Your task to perform on an android device: Go to battery settings Image 0: 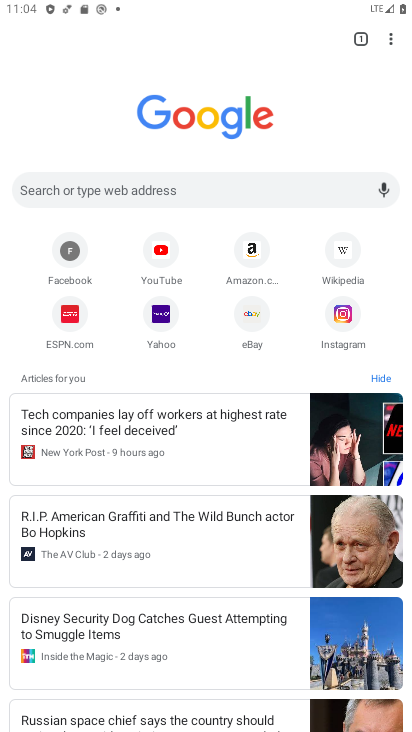
Step 0: press back button
Your task to perform on an android device: Go to battery settings Image 1: 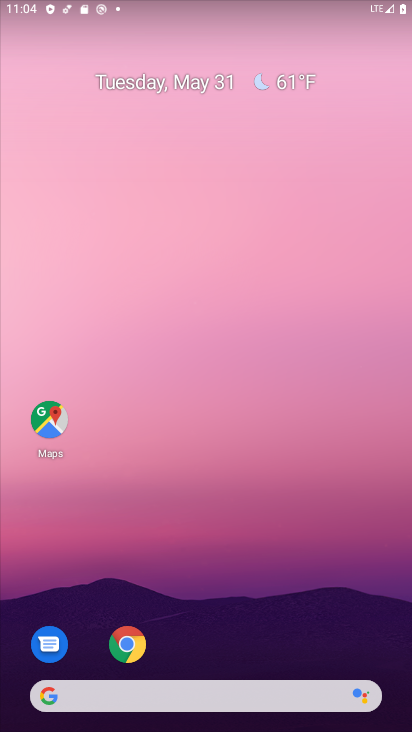
Step 1: drag from (243, 565) to (305, 75)
Your task to perform on an android device: Go to battery settings Image 2: 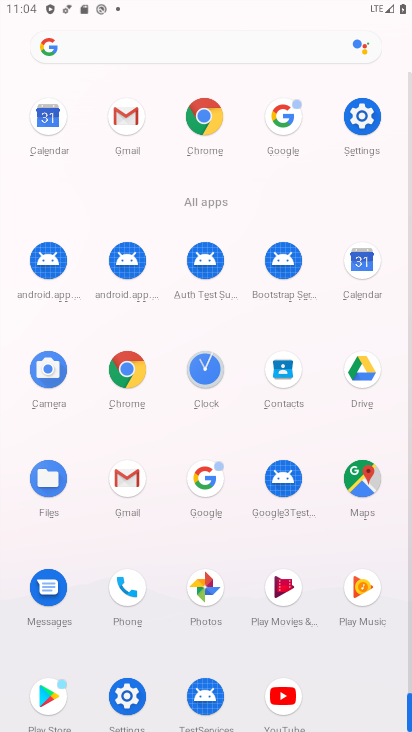
Step 2: click (355, 110)
Your task to perform on an android device: Go to battery settings Image 3: 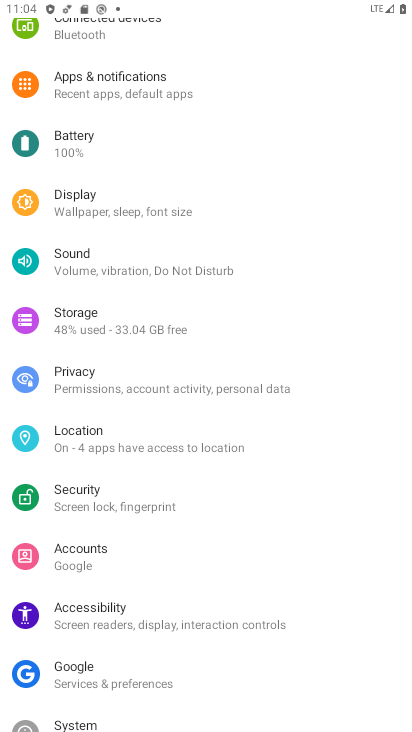
Step 3: click (74, 139)
Your task to perform on an android device: Go to battery settings Image 4: 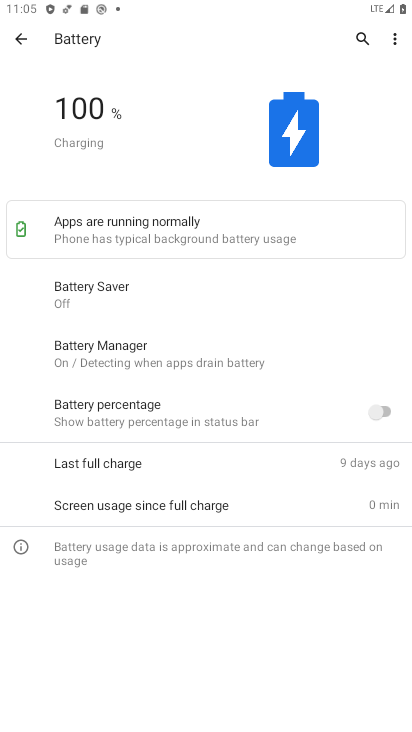
Step 4: click (391, 36)
Your task to perform on an android device: Go to battery settings Image 5: 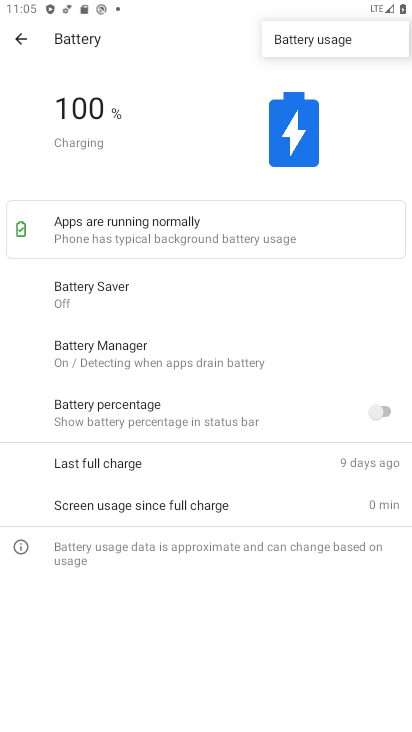
Step 5: click (338, 126)
Your task to perform on an android device: Go to battery settings Image 6: 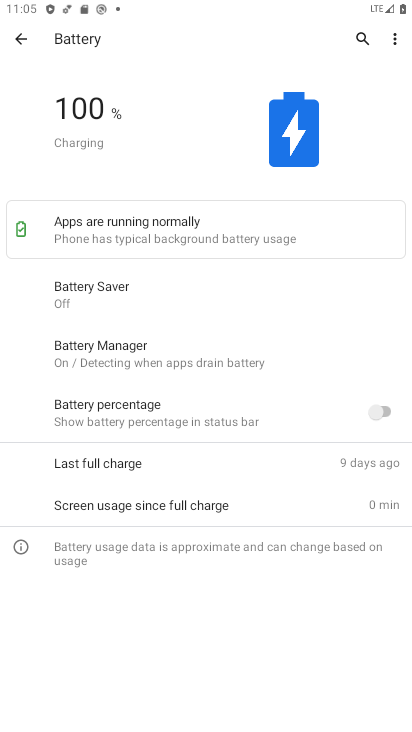
Step 6: task complete